Your task to perform on an android device: visit the assistant section in the google photos Image 0: 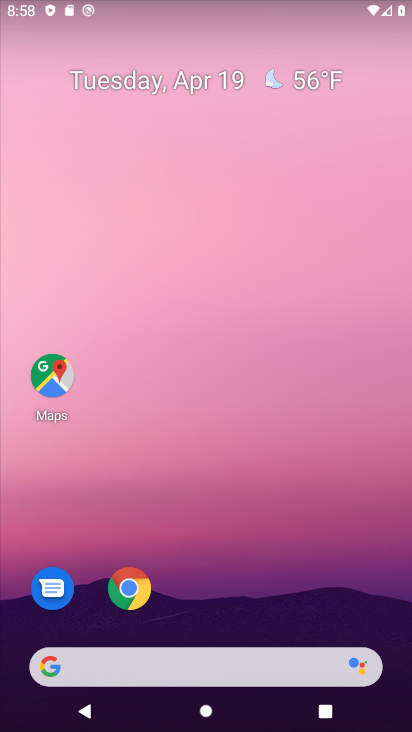
Step 0: drag from (227, 597) to (333, 27)
Your task to perform on an android device: visit the assistant section in the google photos Image 1: 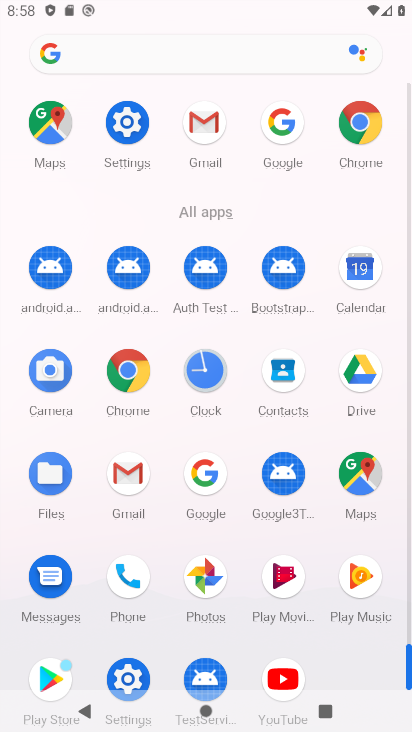
Step 1: click (206, 577)
Your task to perform on an android device: visit the assistant section in the google photos Image 2: 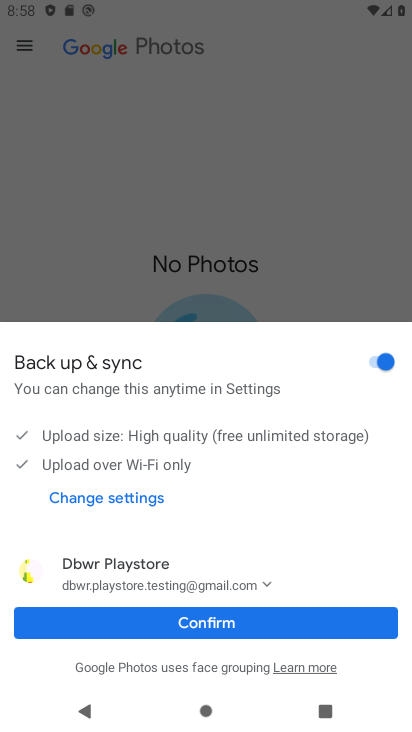
Step 2: click (215, 626)
Your task to perform on an android device: visit the assistant section in the google photos Image 3: 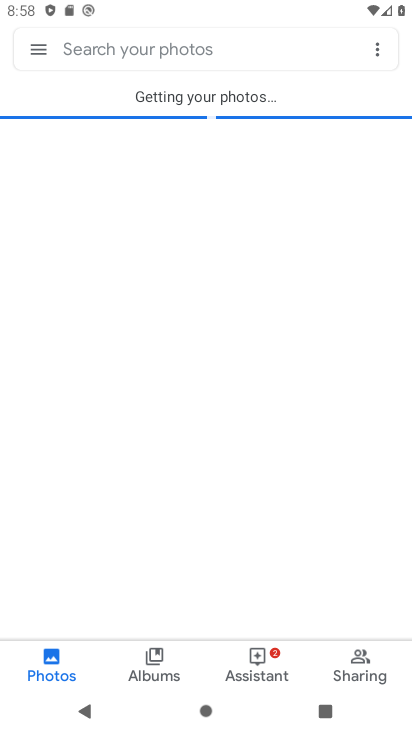
Step 3: click (258, 657)
Your task to perform on an android device: visit the assistant section in the google photos Image 4: 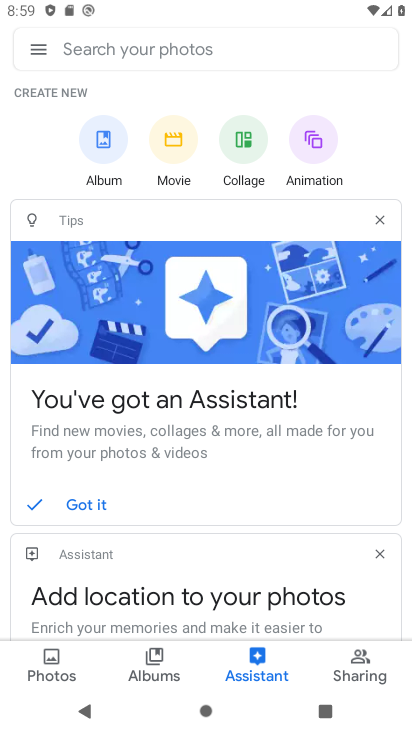
Step 4: task complete